Your task to perform on an android device: turn off notifications settings in the gmail app Image 0: 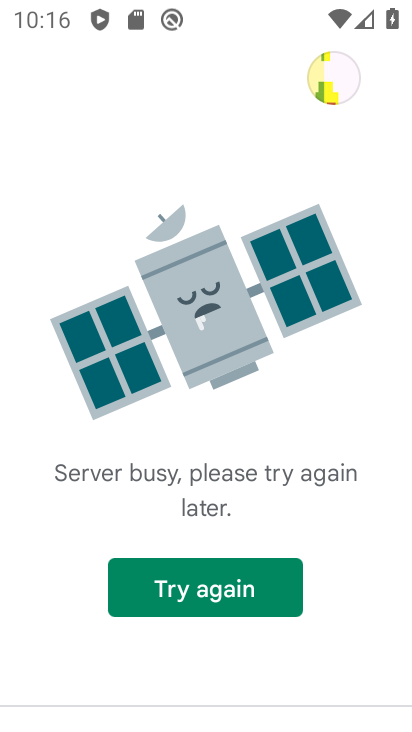
Step 0: press home button
Your task to perform on an android device: turn off notifications settings in the gmail app Image 1: 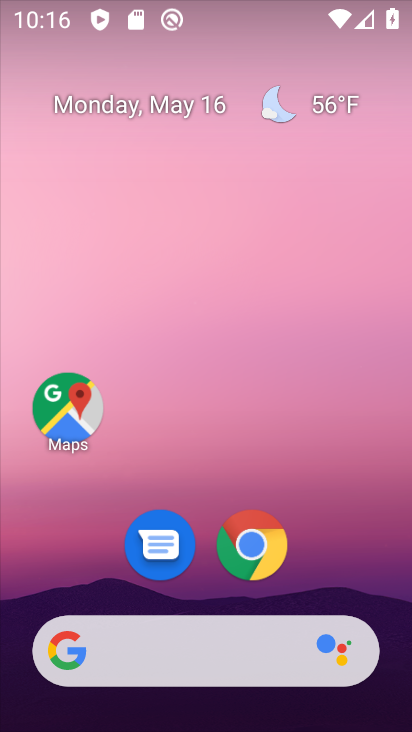
Step 1: drag from (185, 598) to (125, 3)
Your task to perform on an android device: turn off notifications settings in the gmail app Image 2: 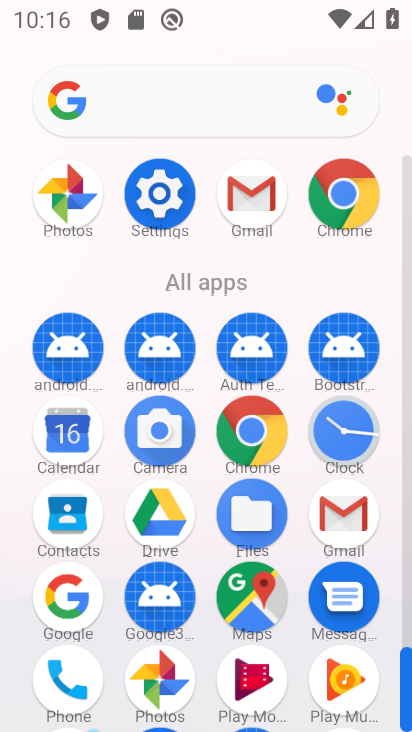
Step 2: click (348, 531)
Your task to perform on an android device: turn off notifications settings in the gmail app Image 3: 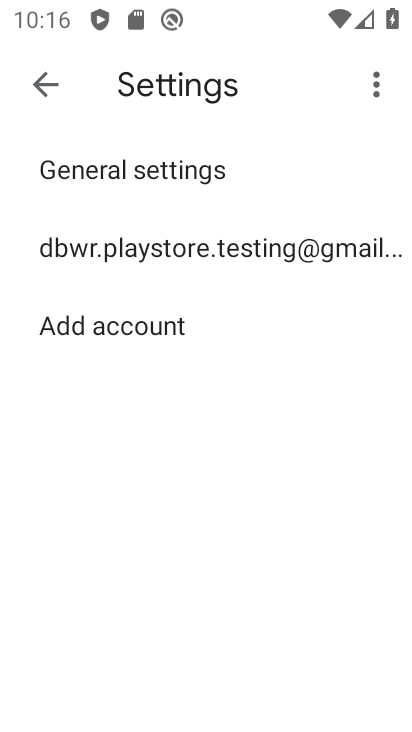
Step 3: click (102, 177)
Your task to perform on an android device: turn off notifications settings in the gmail app Image 4: 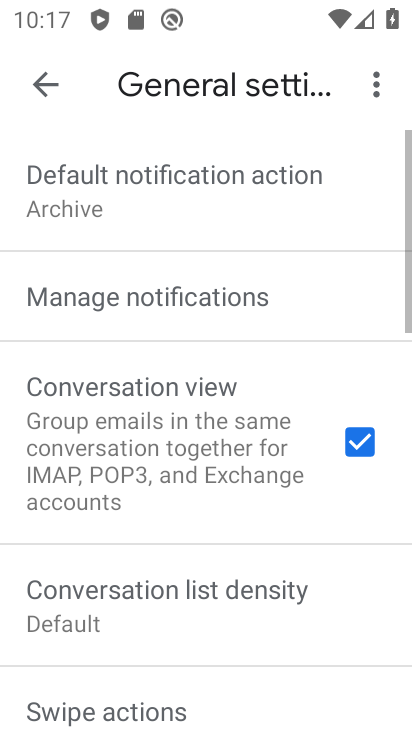
Step 4: click (144, 295)
Your task to perform on an android device: turn off notifications settings in the gmail app Image 5: 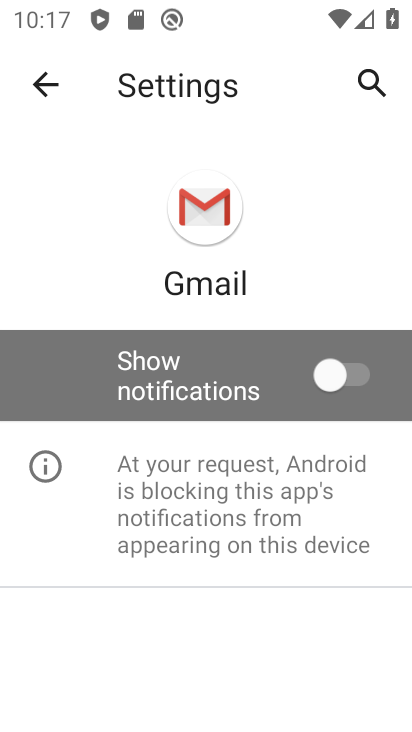
Step 5: task complete